Your task to perform on an android device: open app "Pinterest" (install if not already installed) and enter user name: "Switzerland@yahoo.com" and password: "arithmetics" Image 0: 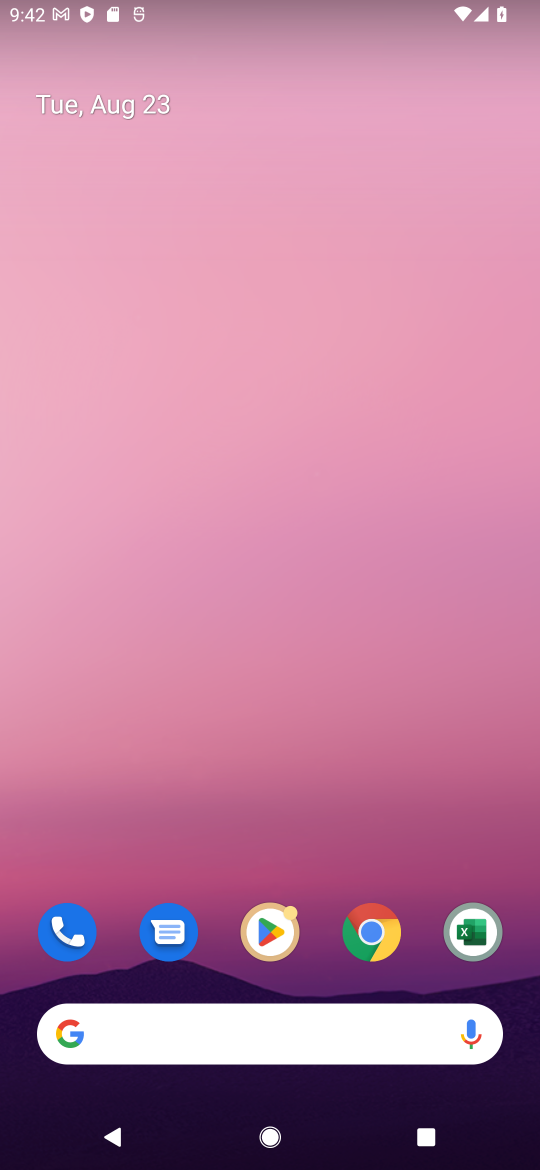
Step 0: click (261, 957)
Your task to perform on an android device: open app "Pinterest" (install if not already installed) and enter user name: "Switzerland@yahoo.com" and password: "arithmetics" Image 1: 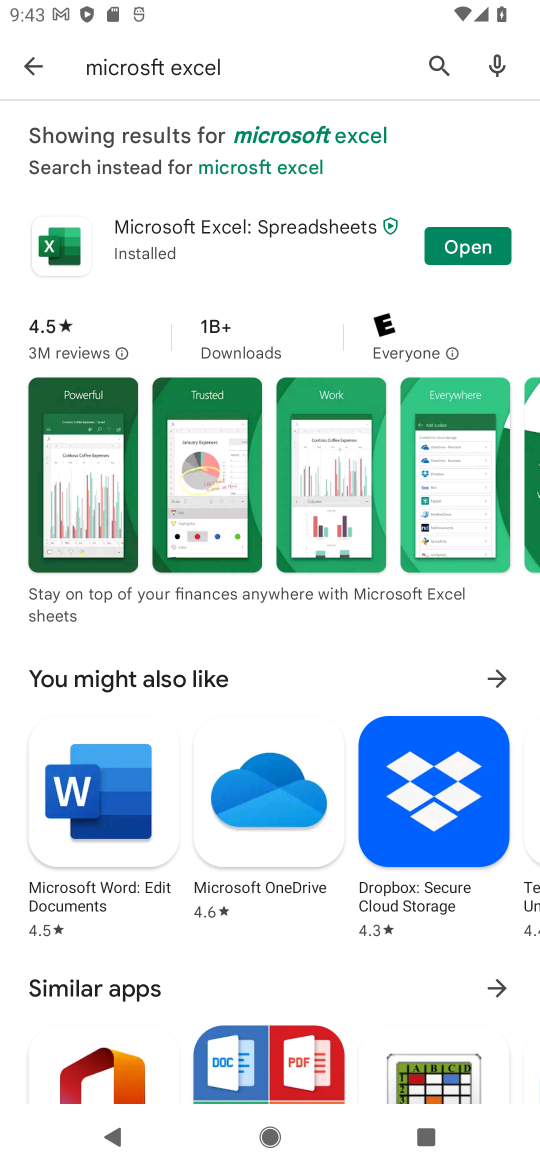
Step 1: click (447, 67)
Your task to perform on an android device: open app "Pinterest" (install if not already installed) and enter user name: "Switzerland@yahoo.com" and password: "arithmetics" Image 2: 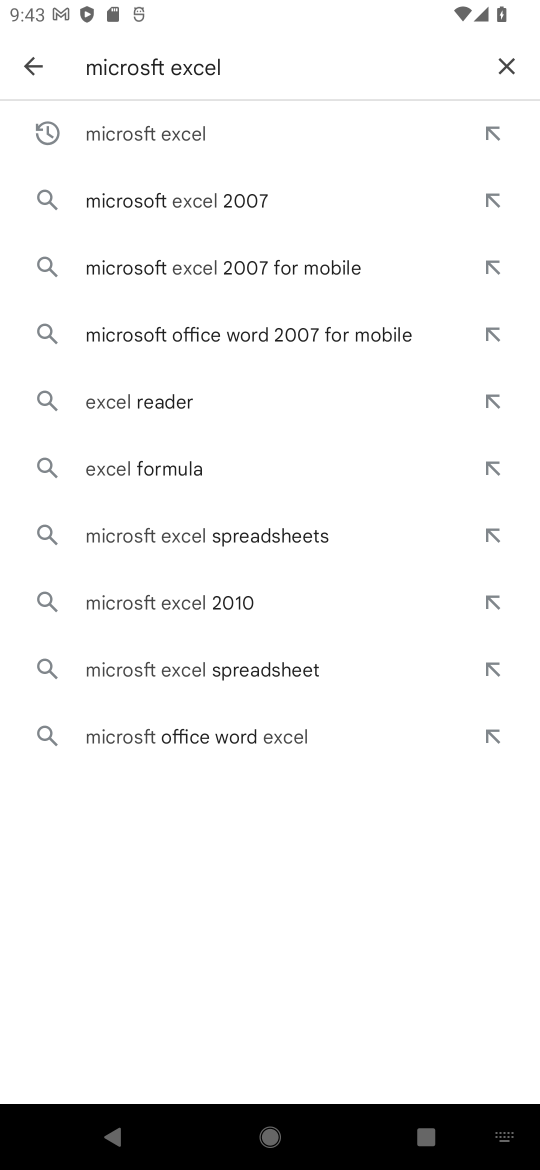
Step 2: click (505, 70)
Your task to perform on an android device: open app "Pinterest" (install if not already installed) and enter user name: "Switzerland@yahoo.com" and password: "arithmetics" Image 3: 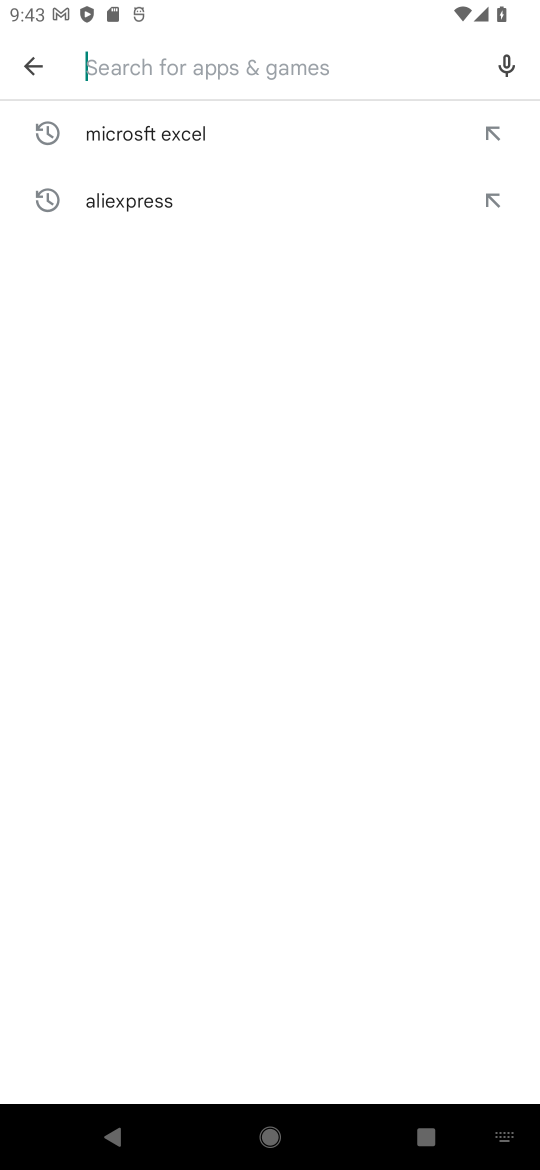
Step 3: type "pinterest"
Your task to perform on an android device: open app "Pinterest" (install if not already installed) and enter user name: "Switzerland@yahoo.com" and password: "arithmetics" Image 4: 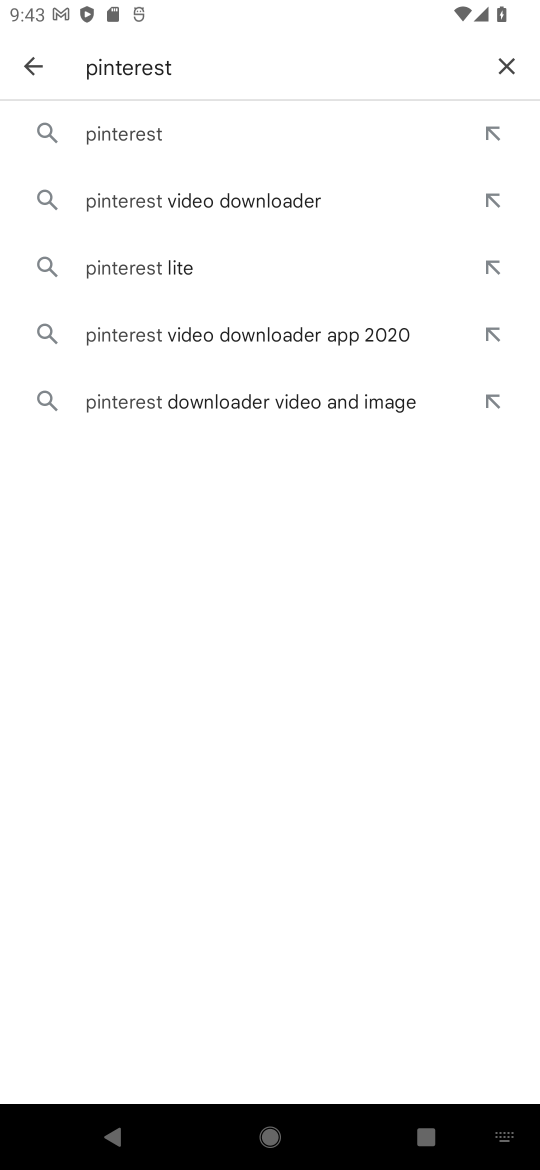
Step 4: click (121, 124)
Your task to perform on an android device: open app "Pinterest" (install if not already installed) and enter user name: "Switzerland@yahoo.com" and password: "arithmetics" Image 5: 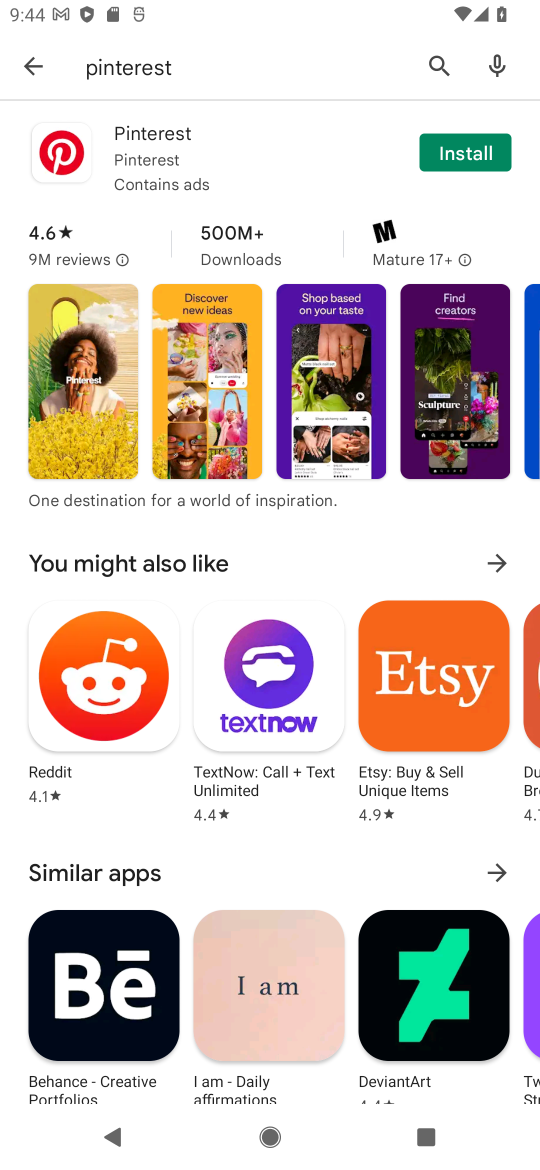
Step 5: click (436, 150)
Your task to perform on an android device: open app "Pinterest" (install if not already installed) and enter user name: "Switzerland@yahoo.com" and password: "arithmetics" Image 6: 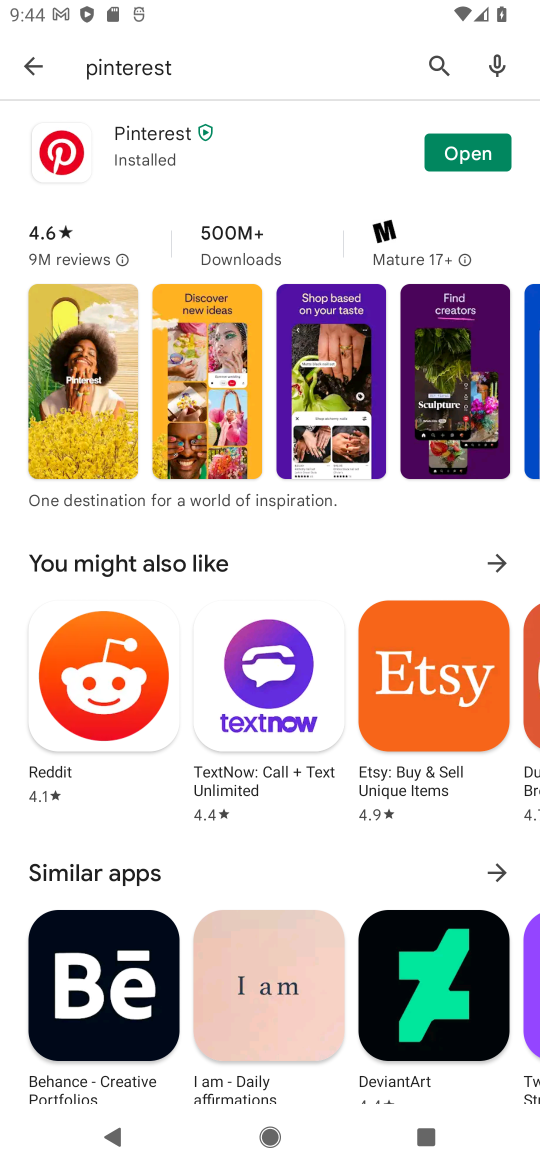
Step 6: click (456, 151)
Your task to perform on an android device: open app "Pinterest" (install if not already installed) and enter user name: "Switzerland@yahoo.com" and password: "arithmetics" Image 7: 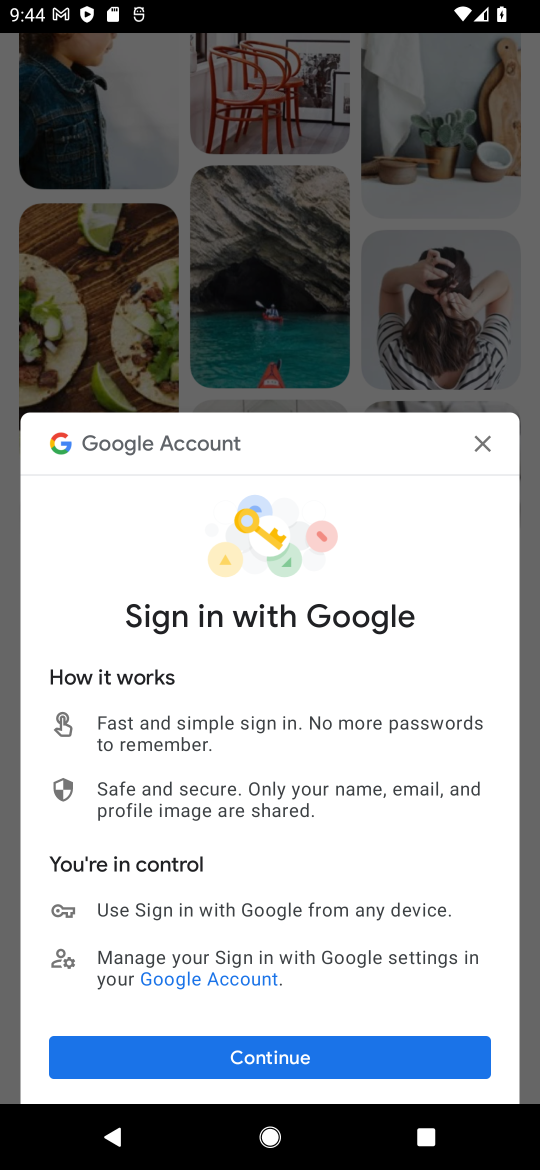
Step 7: click (315, 1060)
Your task to perform on an android device: open app "Pinterest" (install if not already installed) and enter user name: "Switzerland@yahoo.com" and password: "arithmetics" Image 8: 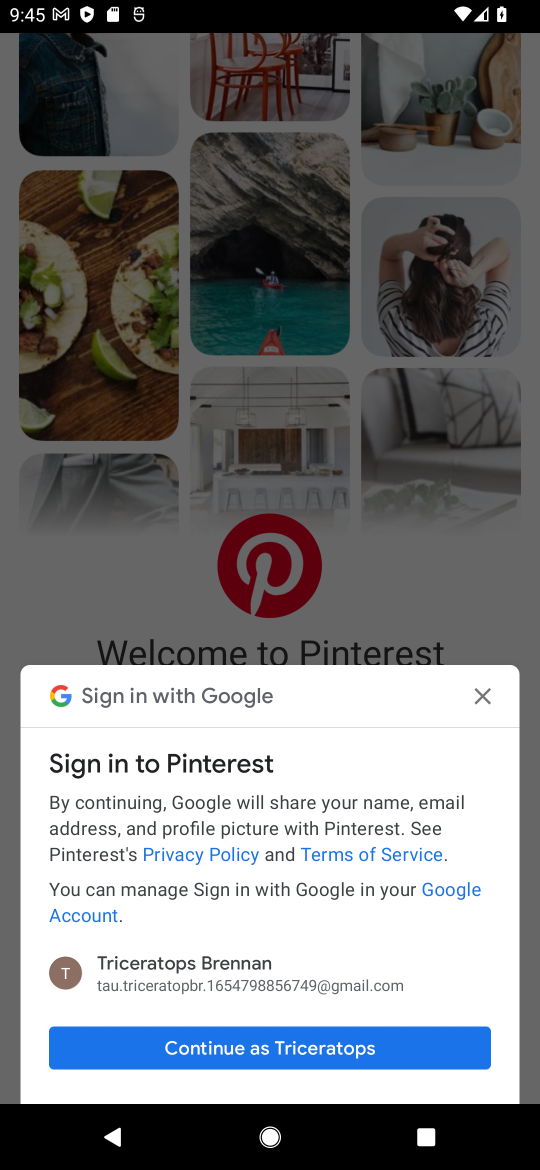
Step 8: task complete